Your task to perform on an android device: Go to settings Image 0: 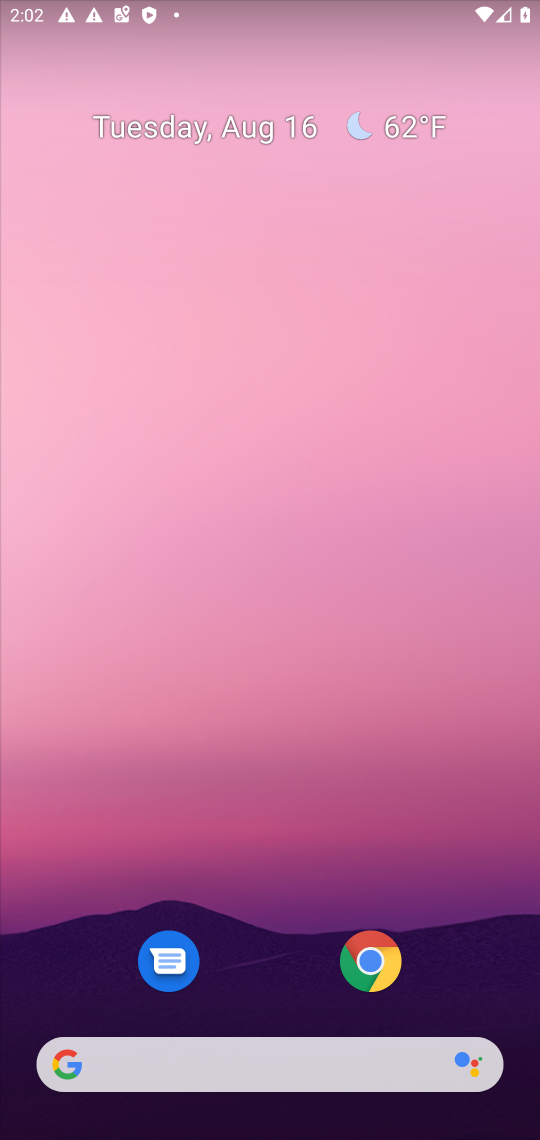
Step 0: drag from (522, 989) to (242, 27)
Your task to perform on an android device: Go to settings Image 1: 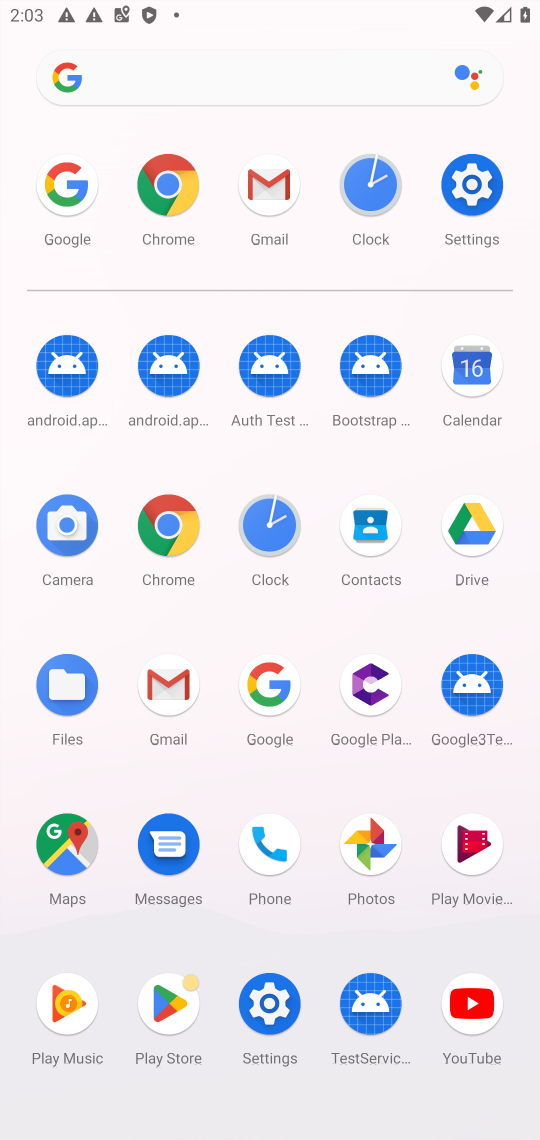
Step 1: click (473, 178)
Your task to perform on an android device: Go to settings Image 2: 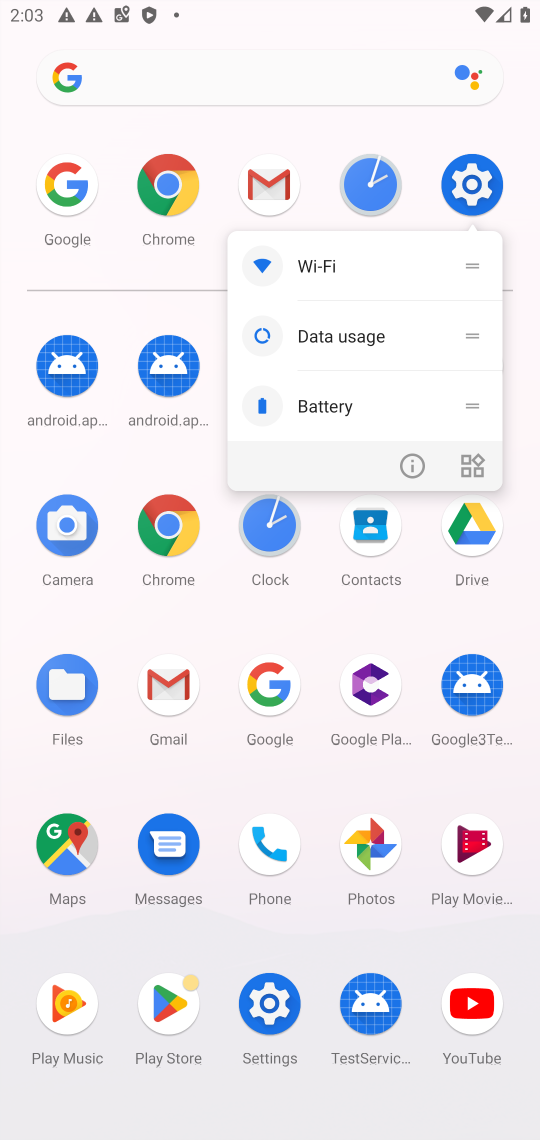
Step 2: click (473, 178)
Your task to perform on an android device: Go to settings Image 3: 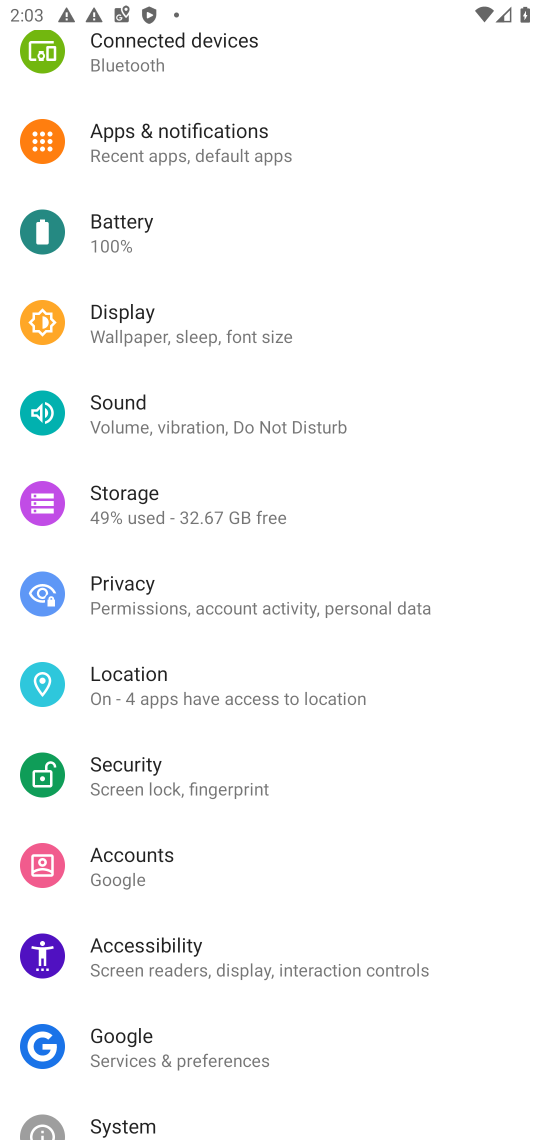
Step 3: task complete